Your task to perform on an android device: Check the news Image 0: 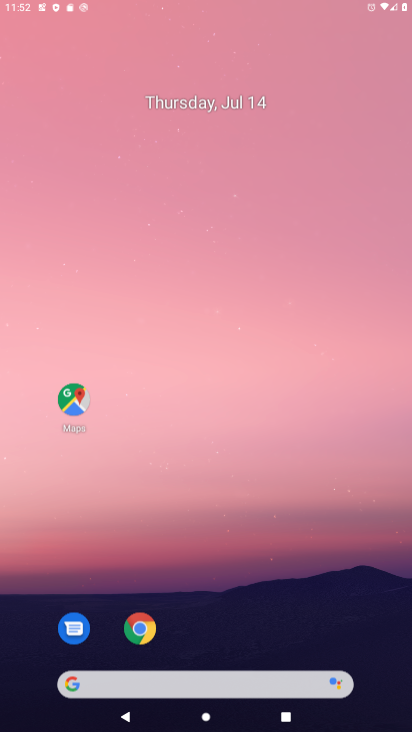
Step 0: press home button
Your task to perform on an android device: Check the news Image 1: 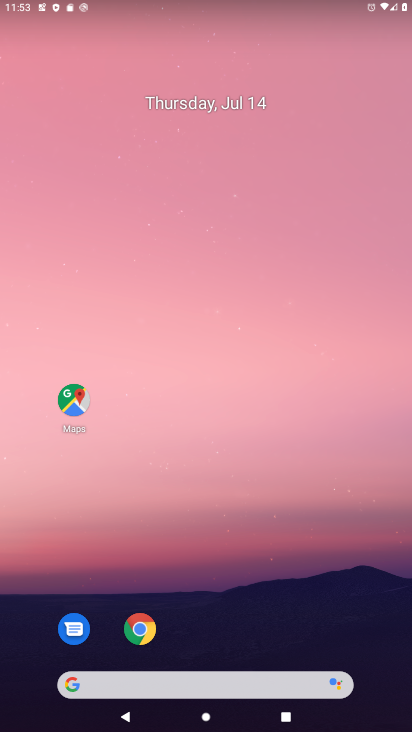
Step 1: click (69, 687)
Your task to perform on an android device: Check the news Image 2: 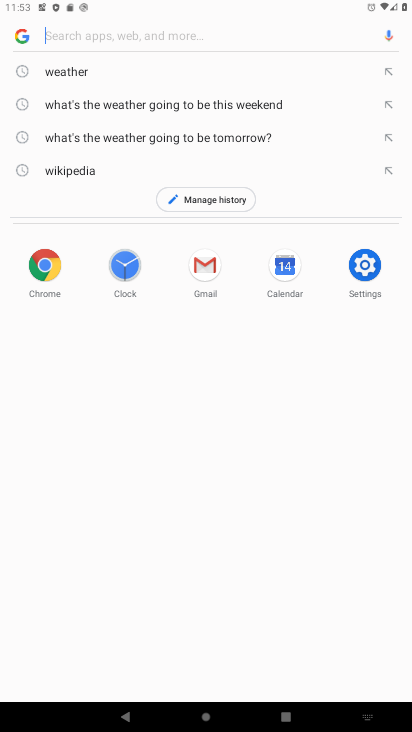
Step 2: type " news"
Your task to perform on an android device: Check the news Image 3: 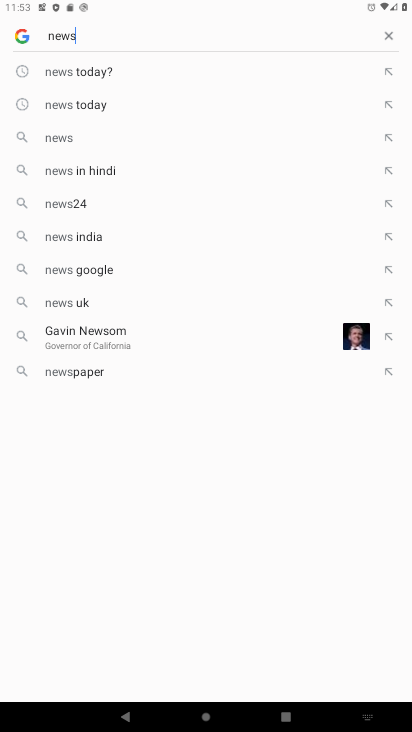
Step 3: press enter
Your task to perform on an android device: Check the news Image 4: 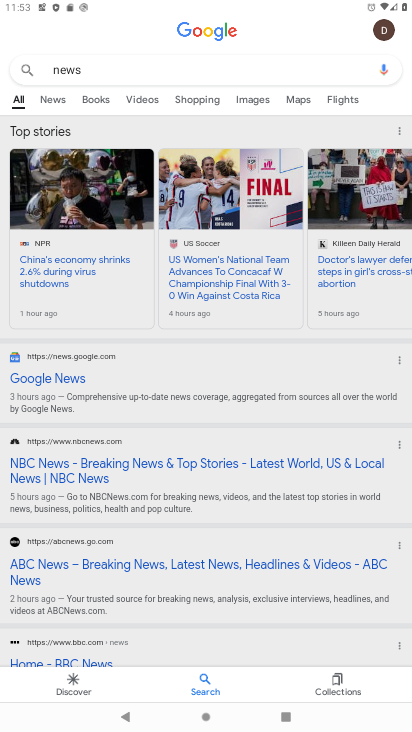
Step 4: task complete